Your task to perform on an android device: Open Google Chrome and click the shortcut for Amazon.com Image 0: 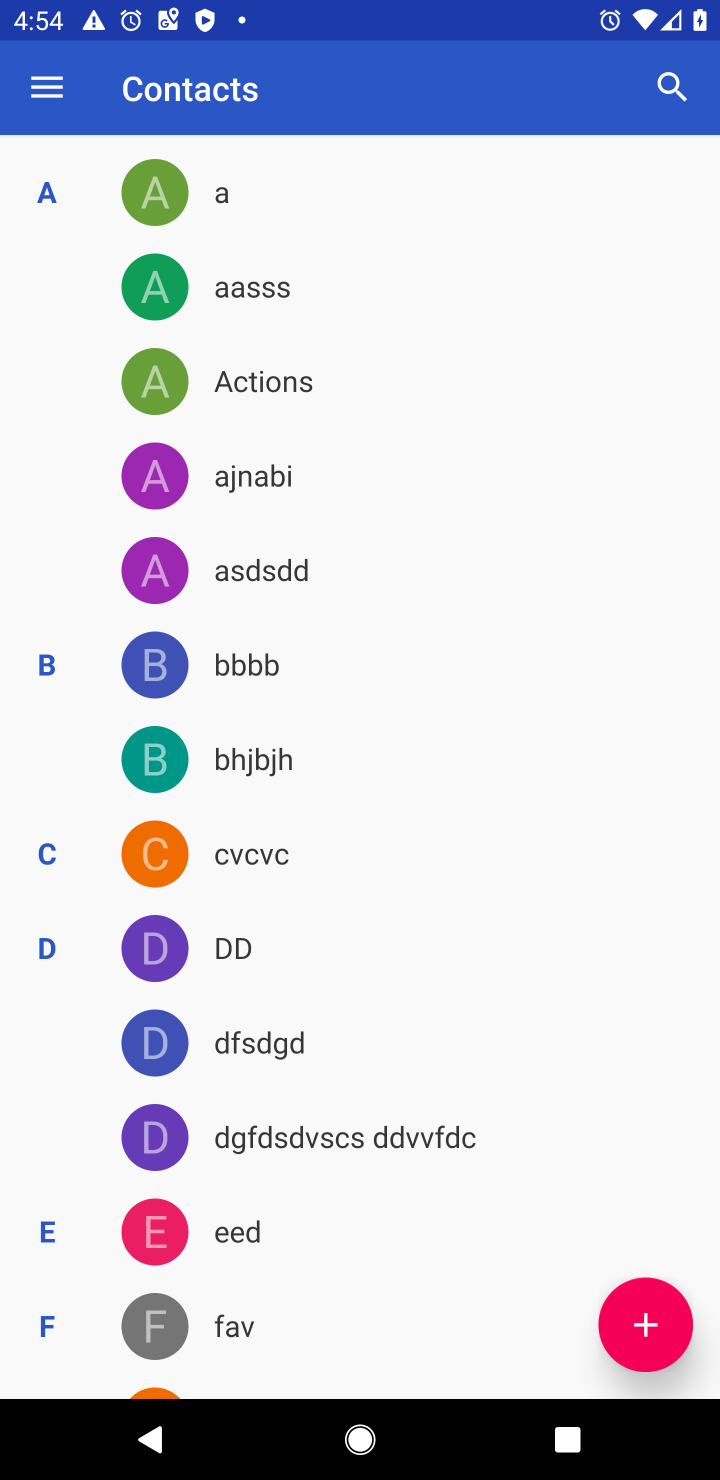
Step 0: press home button
Your task to perform on an android device: Open Google Chrome and click the shortcut for Amazon.com Image 1: 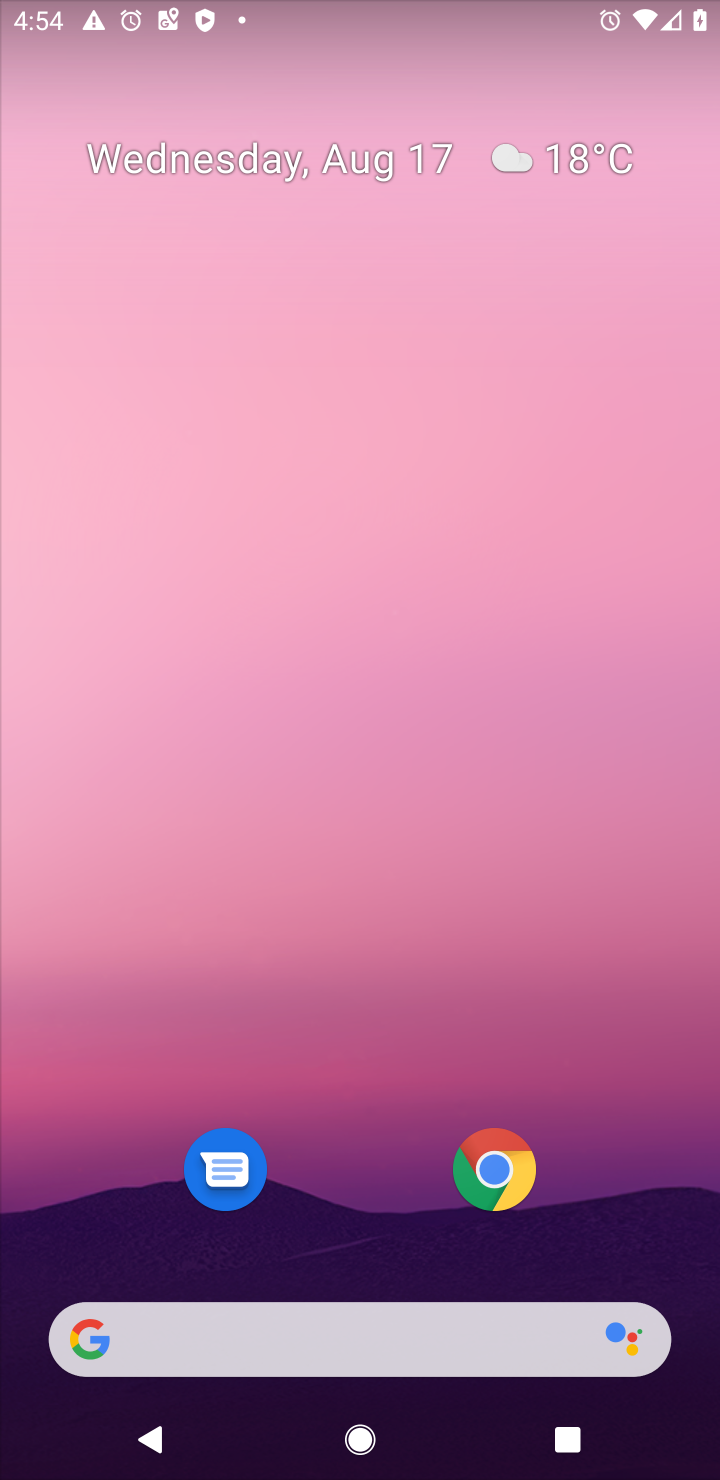
Step 1: drag from (333, 730) to (318, 85)
Your task to perform on an android device: Open Google Chrome and click the shortcut for Amazon.com Image 2: 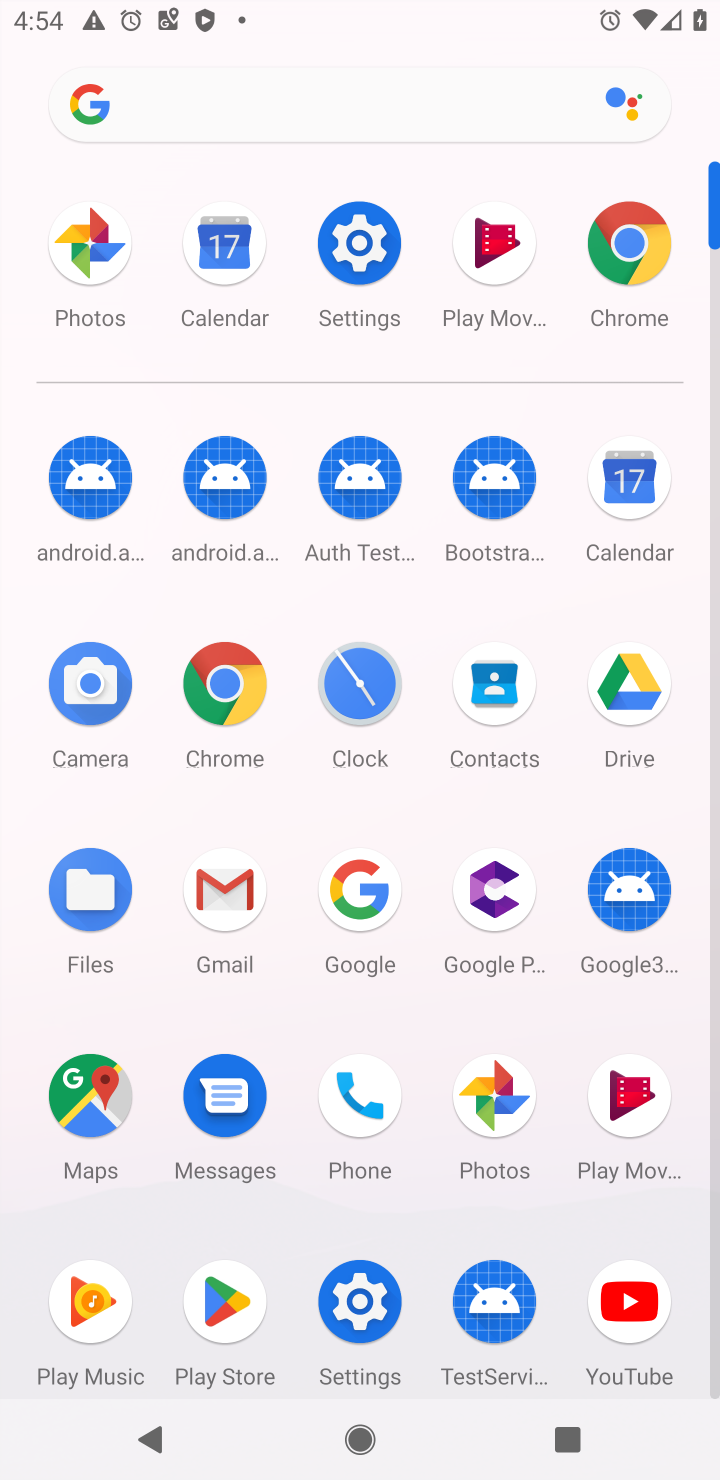
Step 2: click (222, 679)
Your task to perform on an android device: Open Google Chrome and click the shortcut for Amazon.com Image 3: 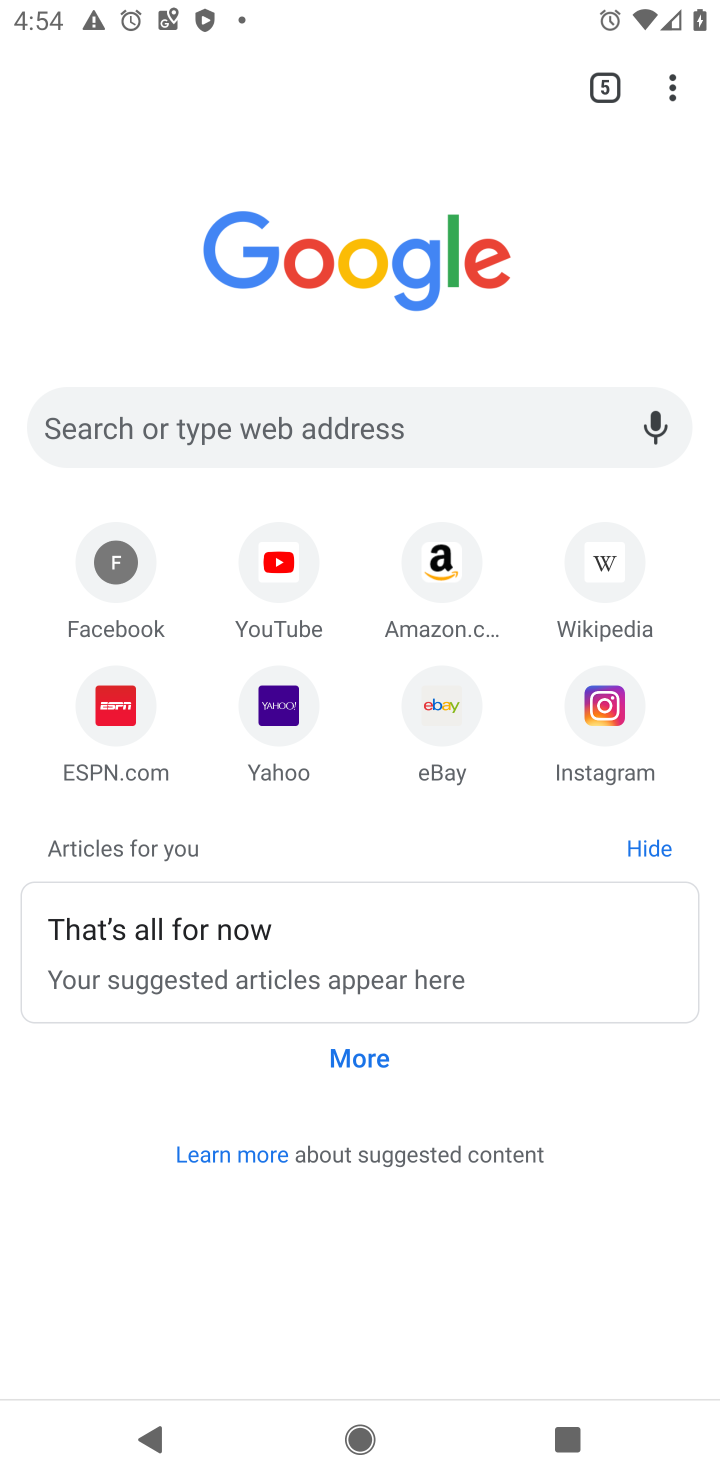
Step 3: click (455, 559)
Your task to perform on an android device: Open Google Chrome and click the shortcut for Amazon.com Image 4: 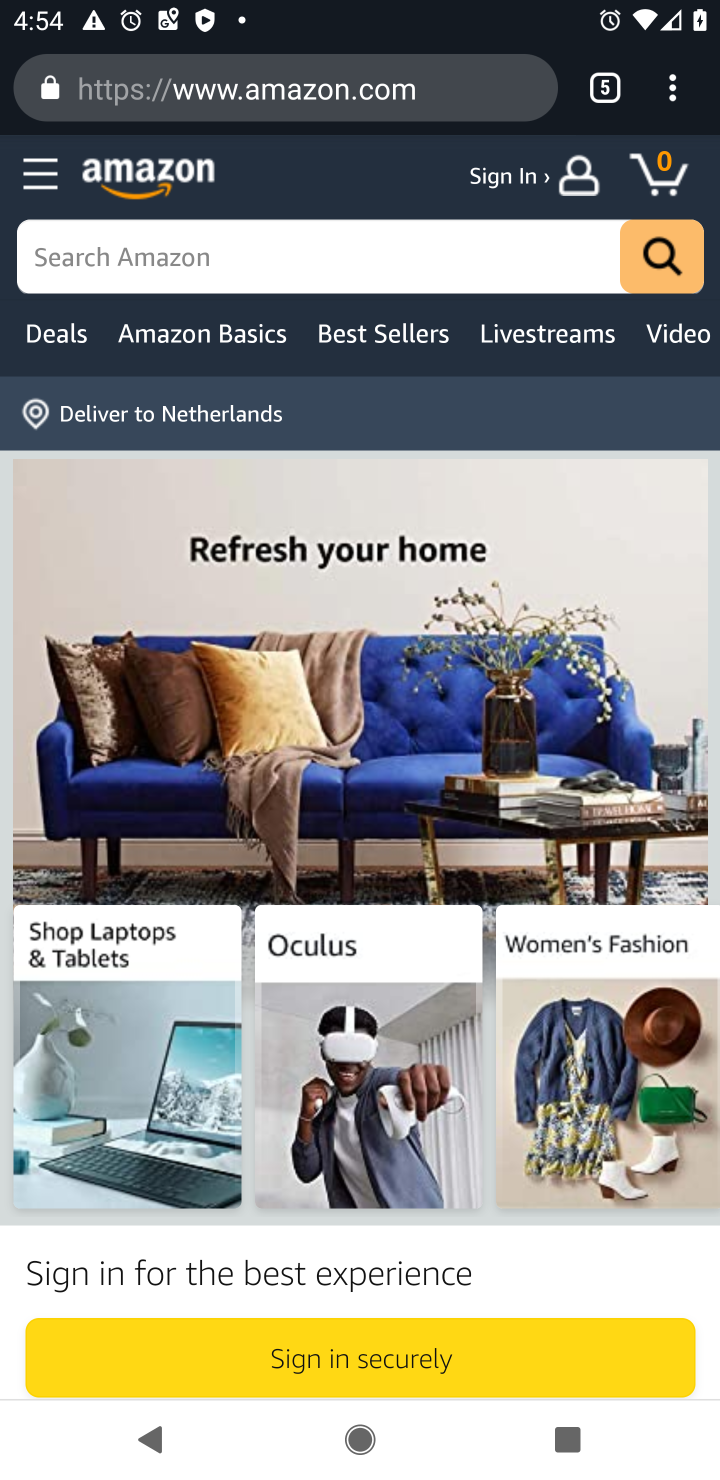
Step 4: task complete